Your task to perform on an android device: Open settings on Google Maps Image 0: 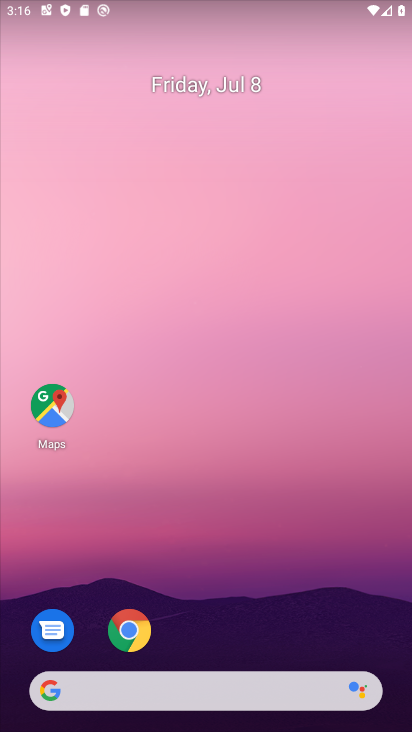
Step 0: click (52, 403)
Your task to perform on an android device: Open settings on Google Maps Image 1: 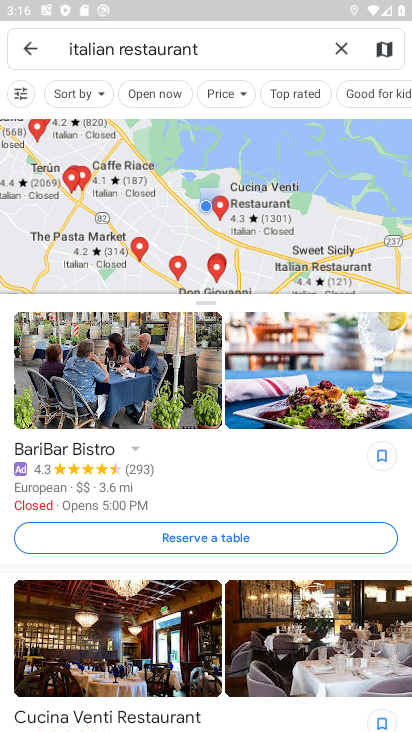
Step 1: click (34, 47)
Your task to perform on an android device: Open settings on Google Maps Image 2: 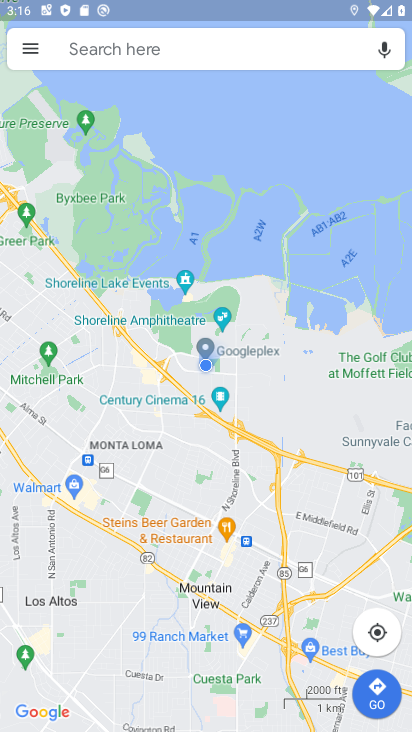
Step 2: click (34, 47)
Your task to perform on an android device: Open settings on Google Maps Image 3: 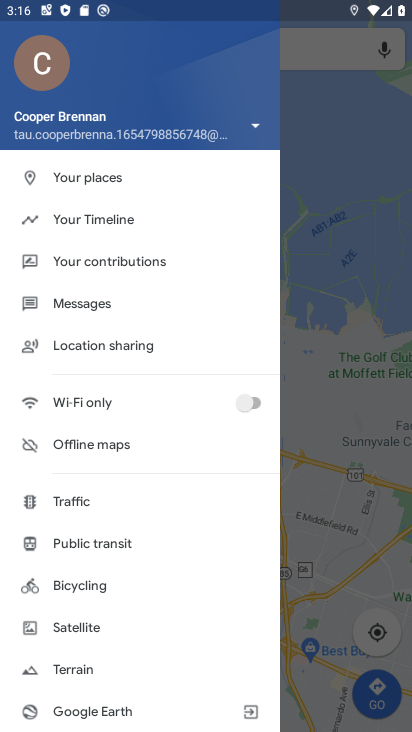
Step 3: drag from (163, 509) to (137, 268)
Your task to perform on an android device: Open settings on Google Maps Image 4: 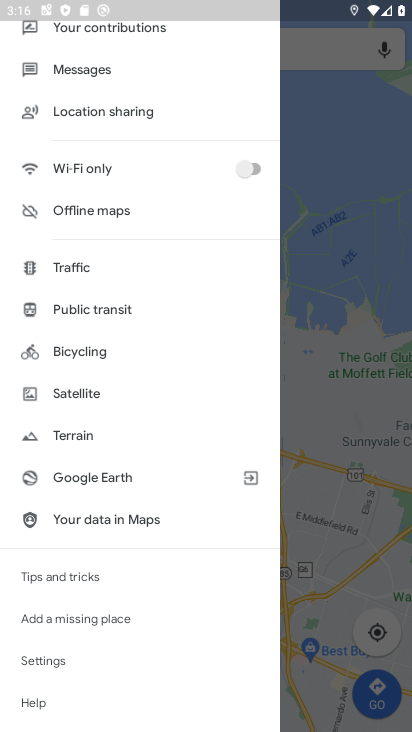
Step 4: click (104, 658)
Your task to perform on an android device: Open settings on Google Maps Image 5: 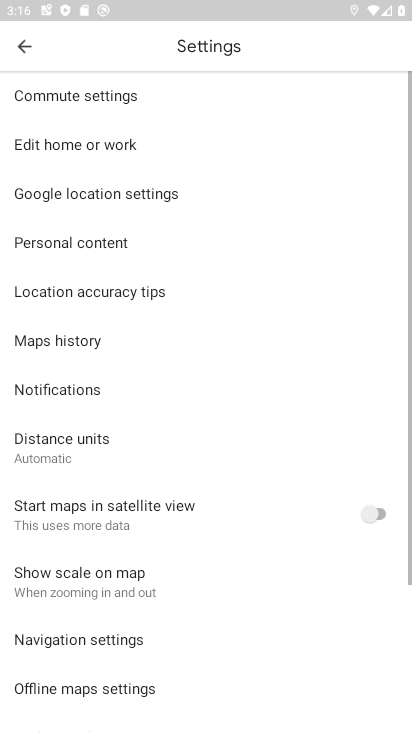
Step 5: task complete